Your task to perform on an android device: uninstall "Speedtest by Ookla" Image 0: 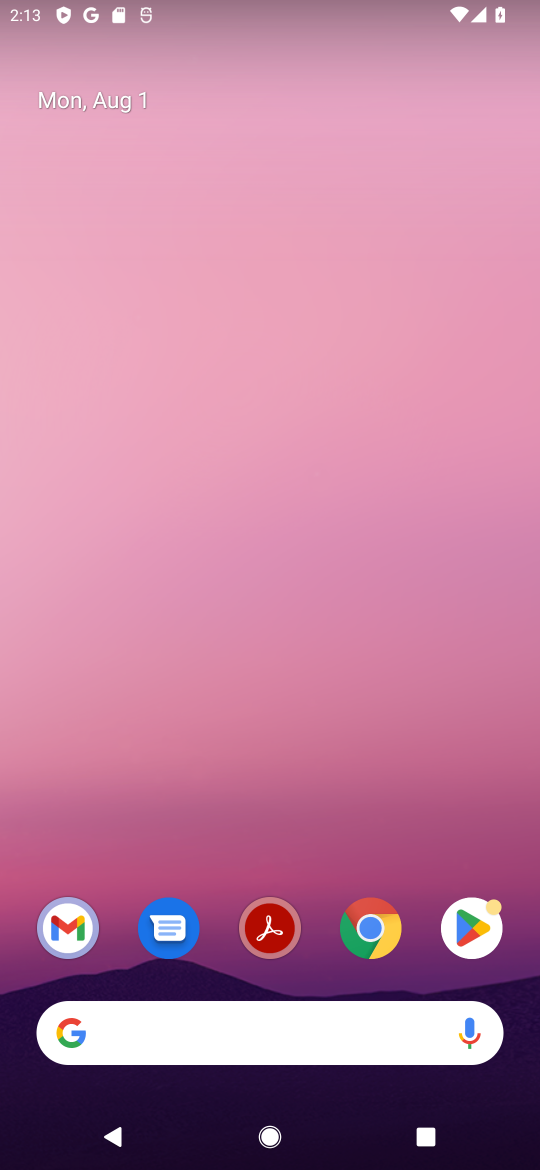
Step 0: click (454, 902)
Your task to perform on an android device: uninstall "Speedtest by Ookla" Image 1: 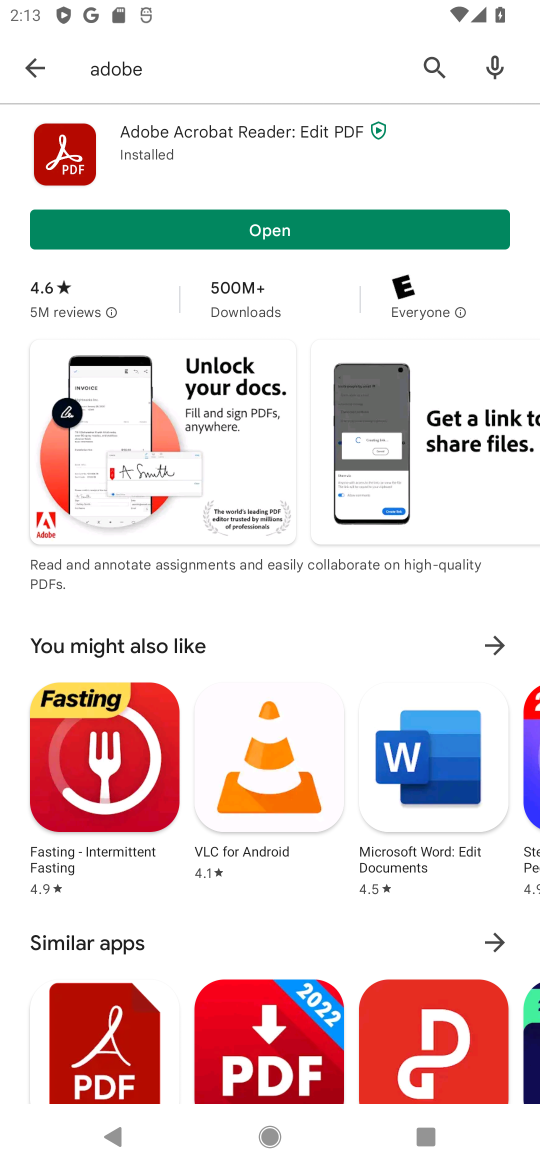
Step 1: click (430, 61)
Your task to perform on an android device: uninstall "Speedtest by Ookla" Image 2: 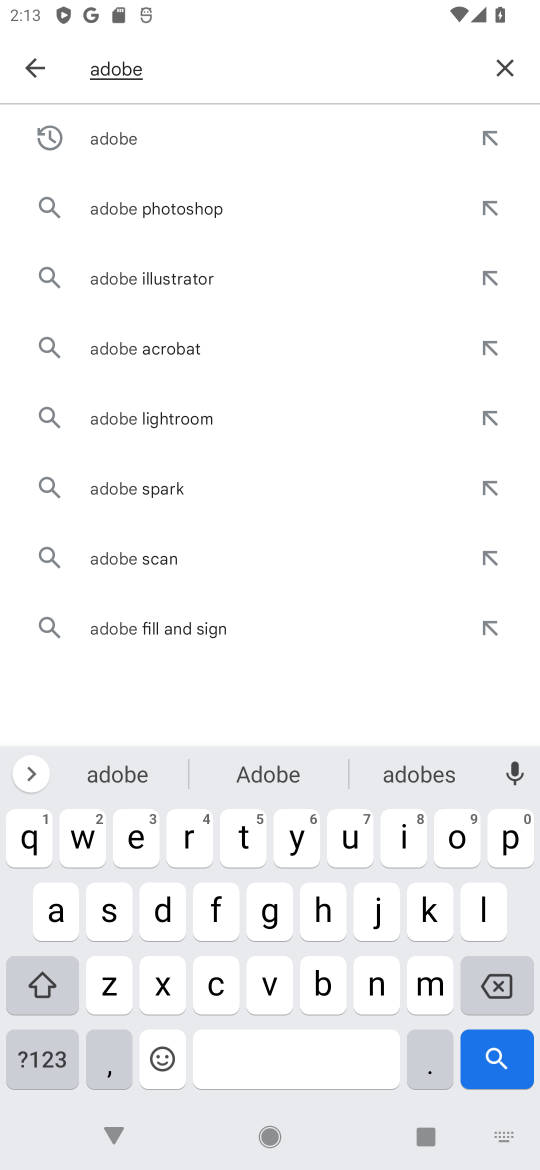
Step 2: click (498, 76)
Your task to perform on an android device: uninstall "Speedtest by Ookla" Image 3: 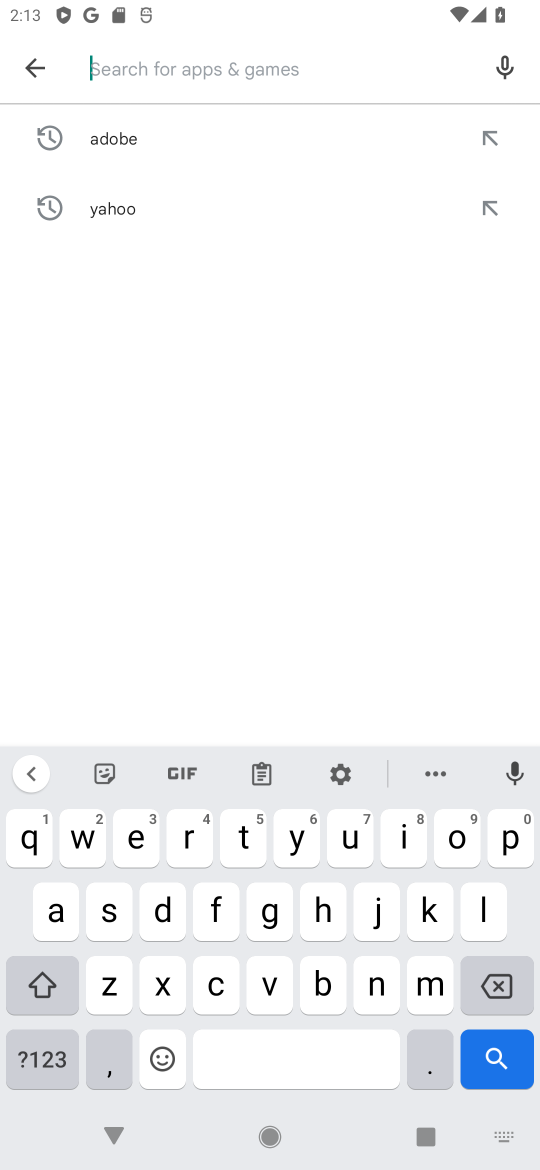
Step 3: click (109, 910)
Your task to perform on an android device: uninstall "Speedtest by Ookla" Image 4: 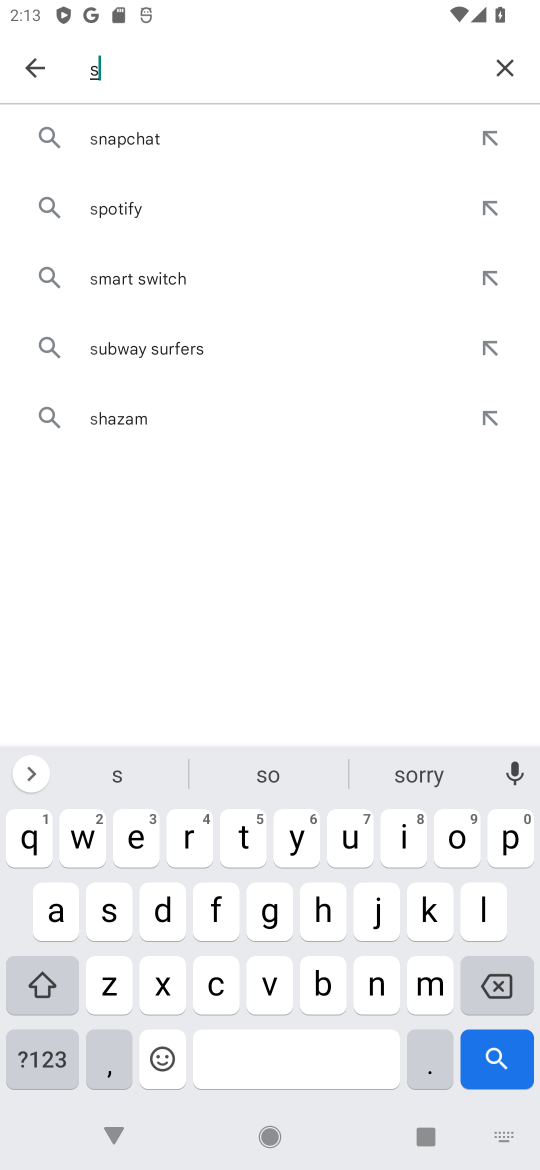
Step 4: click (507, 850)
Your task to perform on an android device: uninstall "Speedtest by Ookla" Image 5: 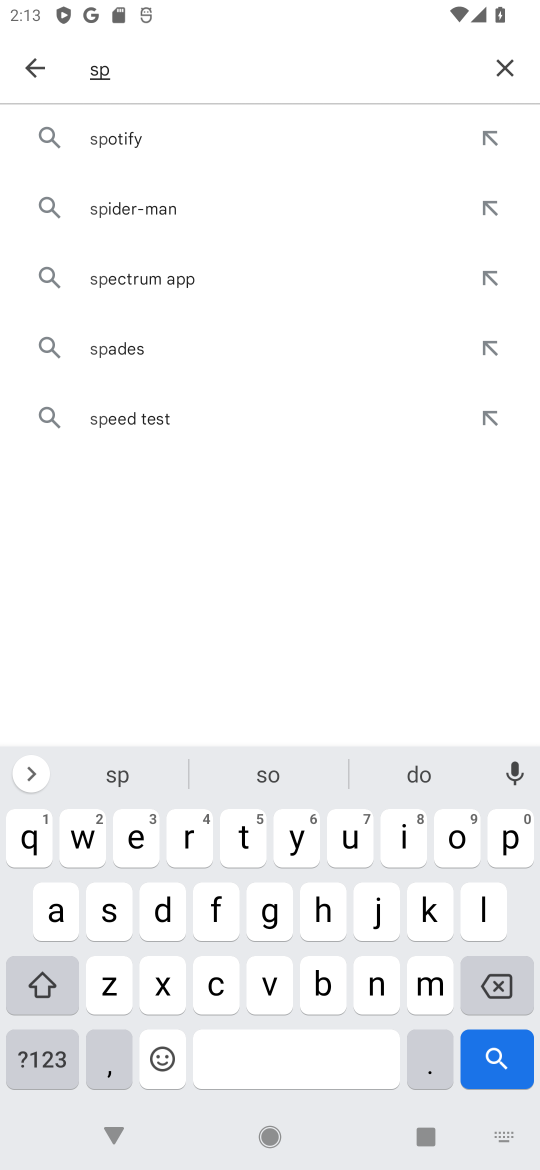
Step 5: click (142, 828)
Your task to perform on an android device: uninstall "Speedtest by Ookla" Image 6: 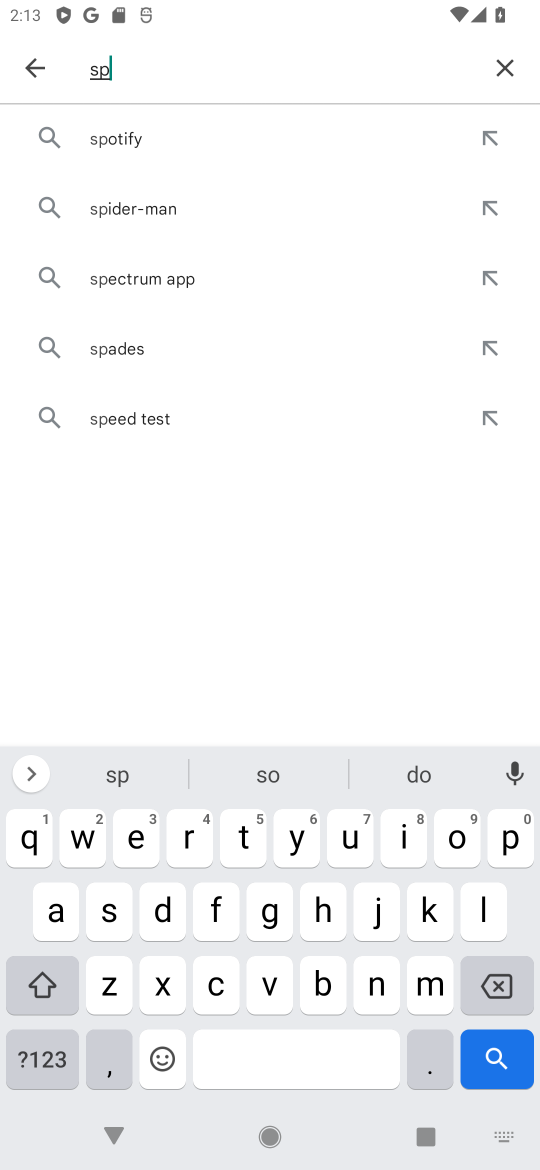
Step 6: click (142, 828)
Your task to perform on an android device: uninstall "Speedtest by Ookla" Image 7: 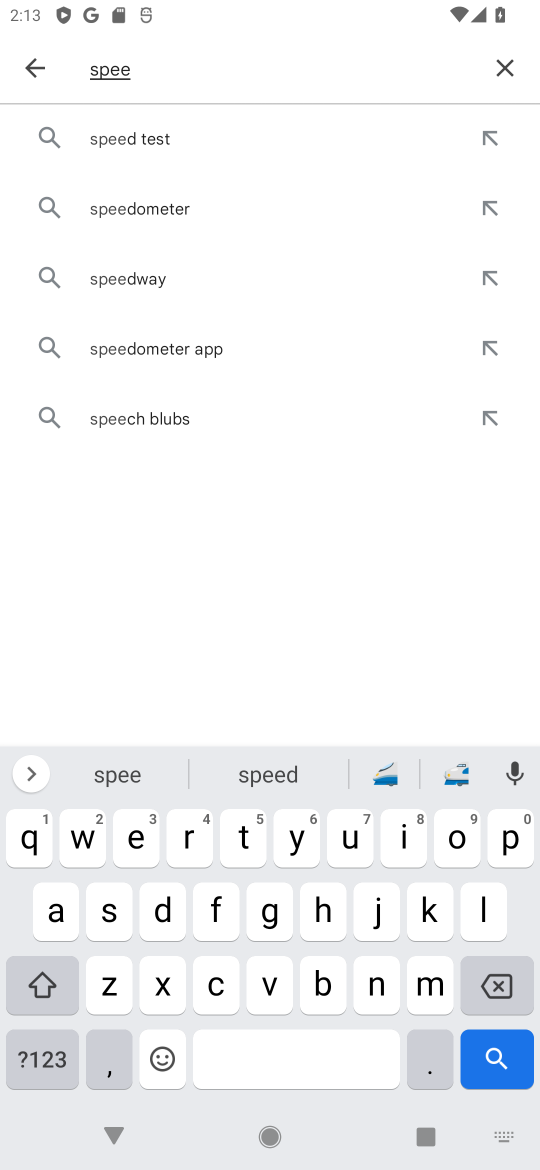
Step 7: click (155, 134)
Your task to perform on an android device: uninstall "Speedtest by Ookla" Image 8: 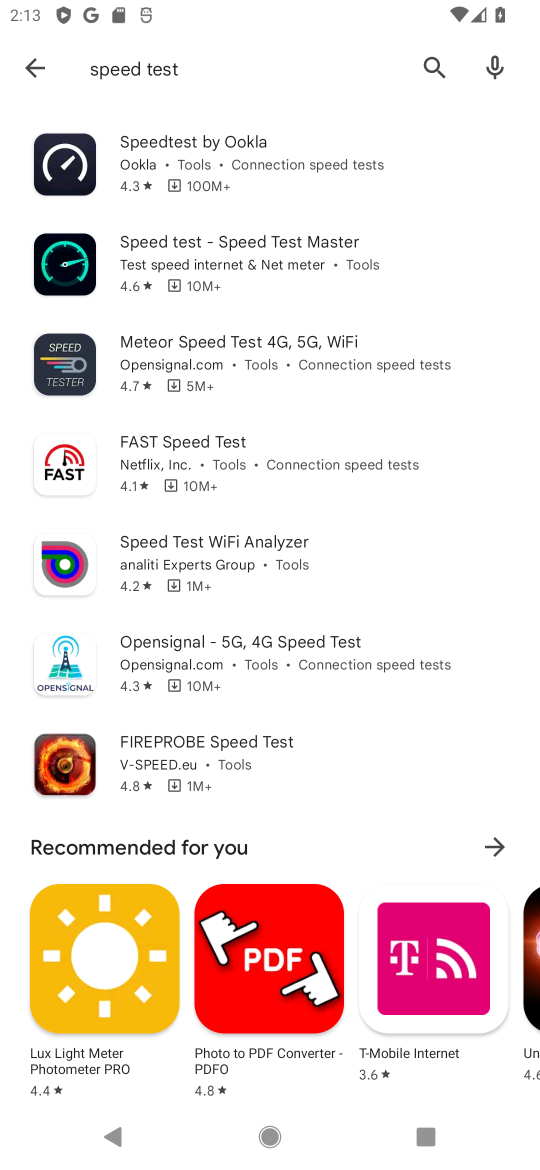
Step 8: click (140, 155)
Your task to perform on an android device: uninstall "Speedtest by Ookla" Image 9: 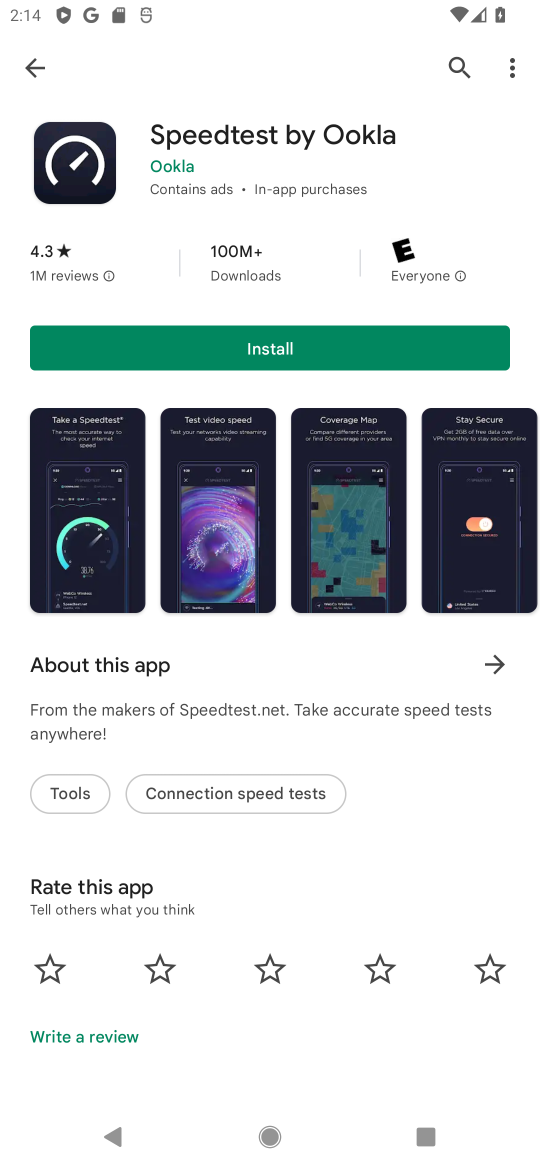
Step 9: task complete